Your task to perform on an android device: turn off notifications in google photos Image 0: 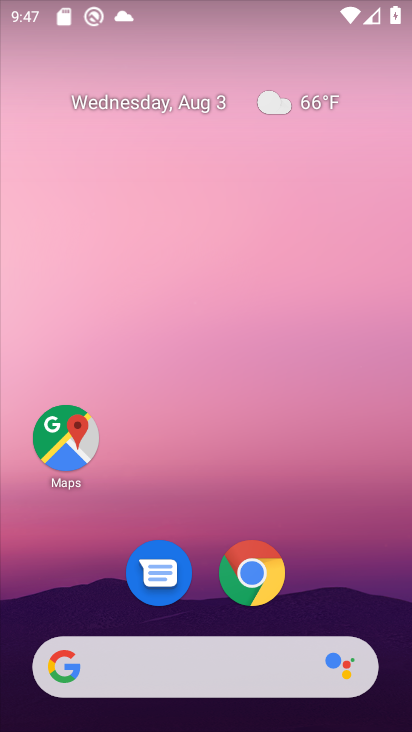
Step 0: drag from (213, 607) to (214, 159)
Your task to perform on an android device: turn off notifications in google photos Image 1: 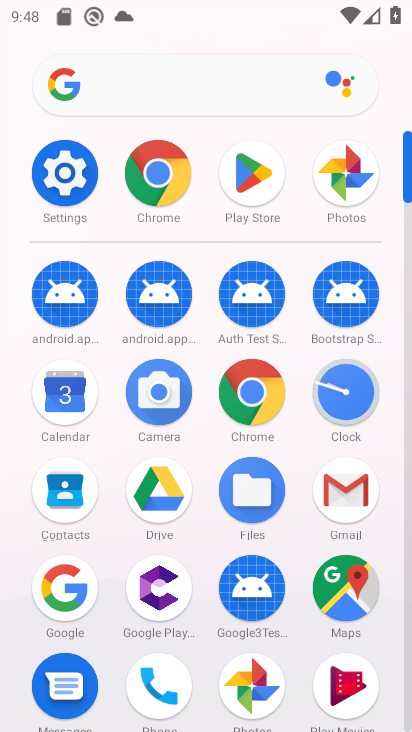
Step 1: click (250, 677)
Your task to perform on an android device: turn off notifications in google photos Image 2: 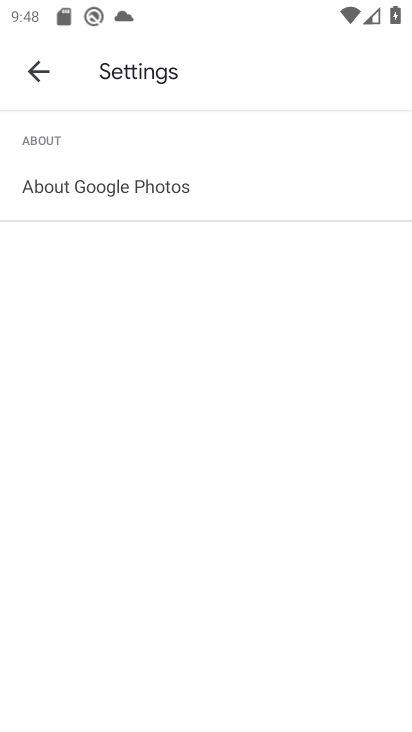
Step 2: click (40, 78)
Your task to perform on an android device: turn off notifications in google photos Image 3: 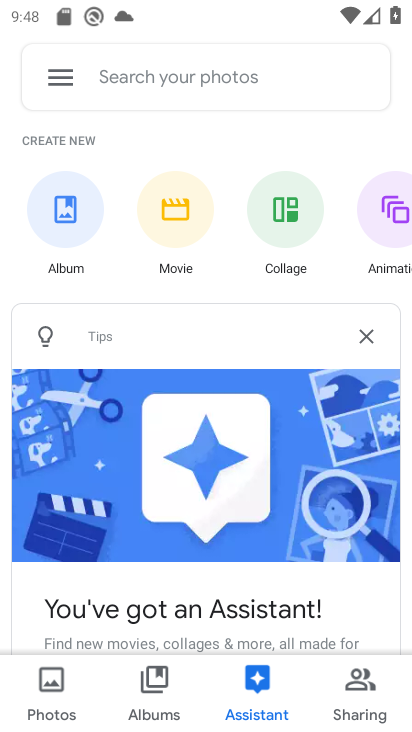
Step 3: click (52, 86)
Your task to perform on an android device: turn off notifications in google photos Image 4: 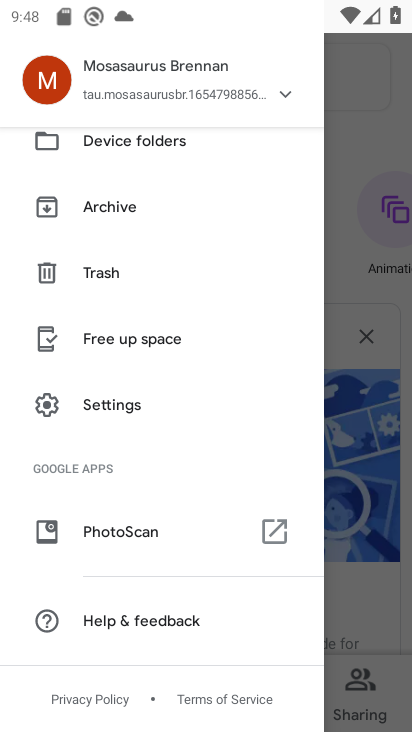
Step 4: click (111, 411)
Your task to perform on an android device: turn off notifications in google photos Image 5: 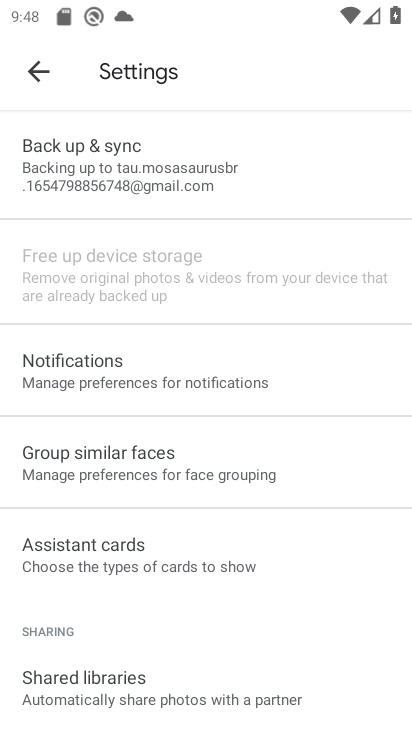
Step 5: click (127, 378)
Your task to perform on an android device: turn off notifications in google photos Image 6: 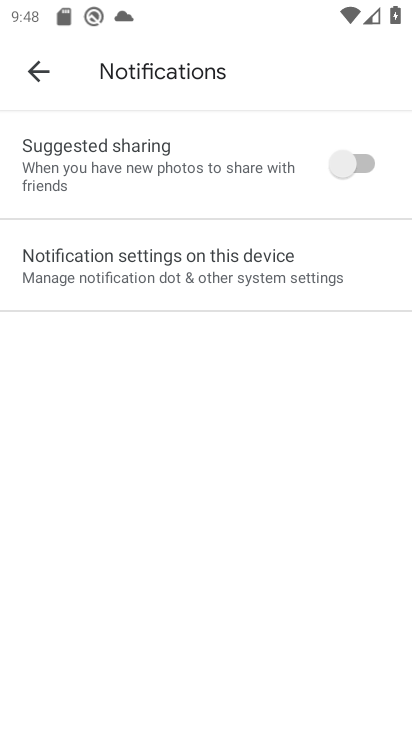
Step 6: click (158, 287)
Your task to perform on an android device: turn off notifications in google photos Image 7: 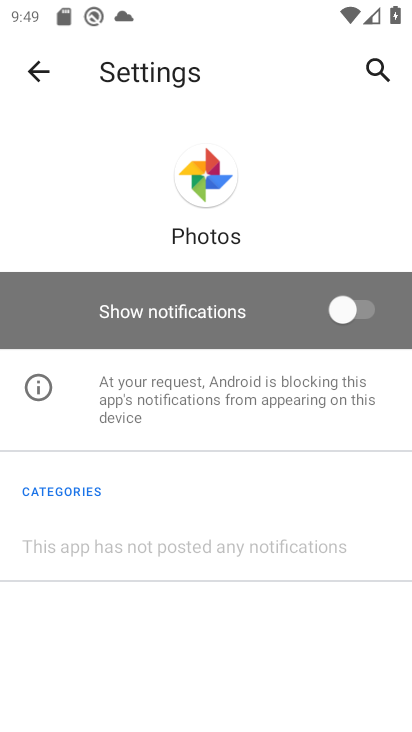
Step 7: task complete